Your task to perform on an android device: What's on my calendar today? Image 0: 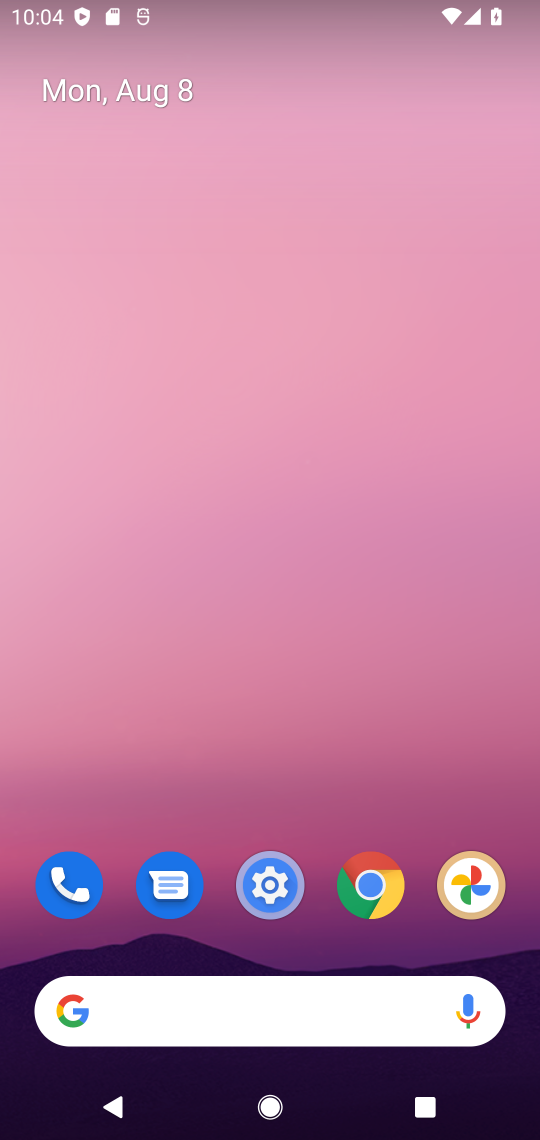
Step 0: drag from (86, 1097) to (305, 292)
Your task to perform on an android device: What's on my calendar today? Image 1: 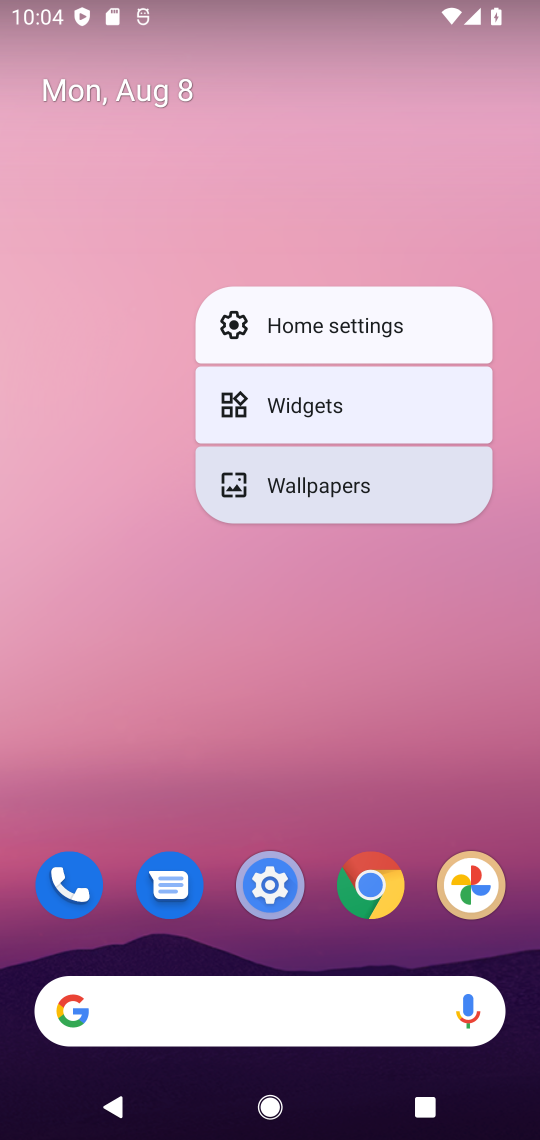
Step 1: drag from (36, 1100) to (124, 300)
Your task to perform on an android device: What's on my calendar today? Image 2: 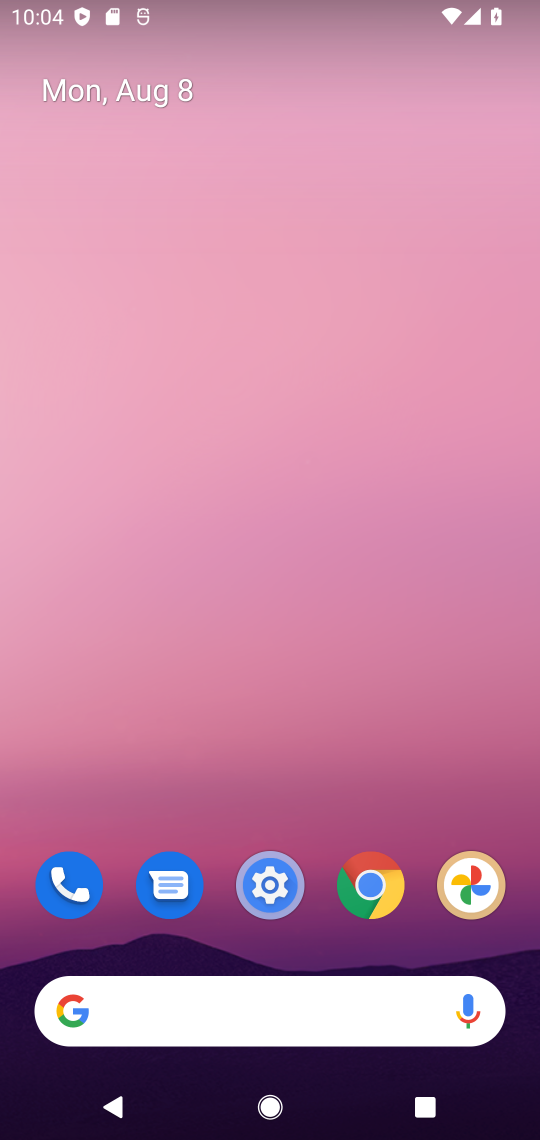
Step 2: drag from (52, 1028) to (98, 289)
Your task to perform on an android device: What's on my calendar today? Image 3: 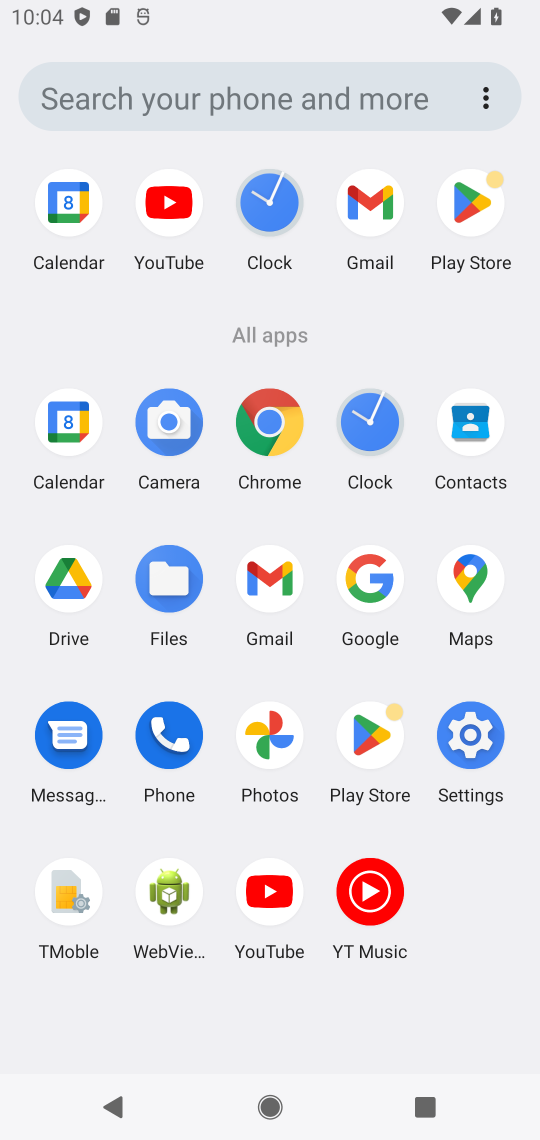
Step 3: click (56, 428)
Your task to perform on an android device: What's on my calendar today? Image 4: 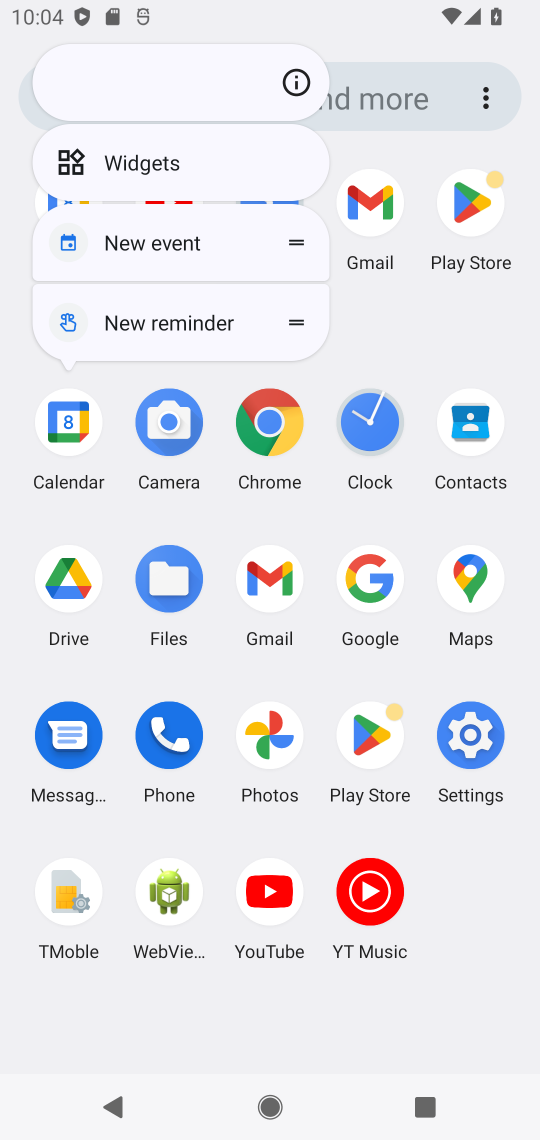
Step 4: click (56, 428)
Your task to perform on an android device: What's on my calendar today? Image 5: 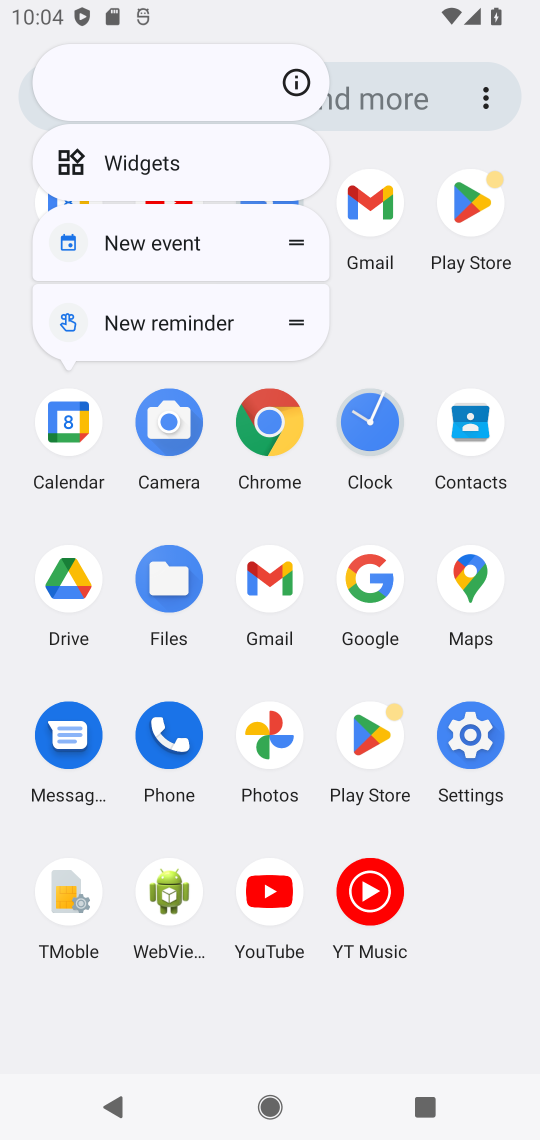
Step 5: click (56, 428)
Your task to perform on an android device: What's on my calendar today? Image 6: 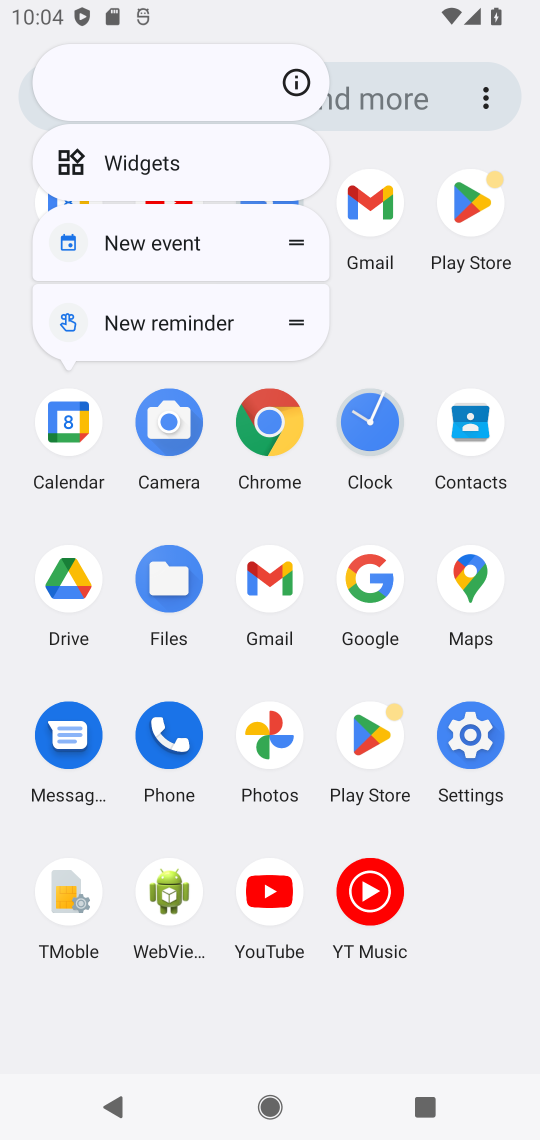
Step 6: click (58, 428)
Your task to perform on an android device: What's on my calendar today? Image 7: 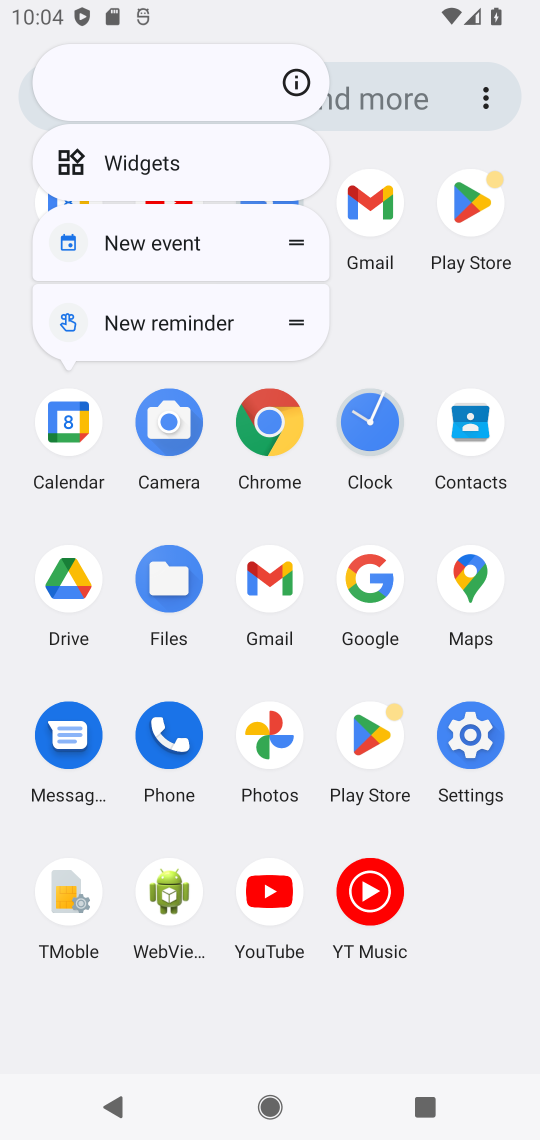
Step 7: click (58, 428)
Your task to perform on an android device: What's on my calendar today? Image 8: 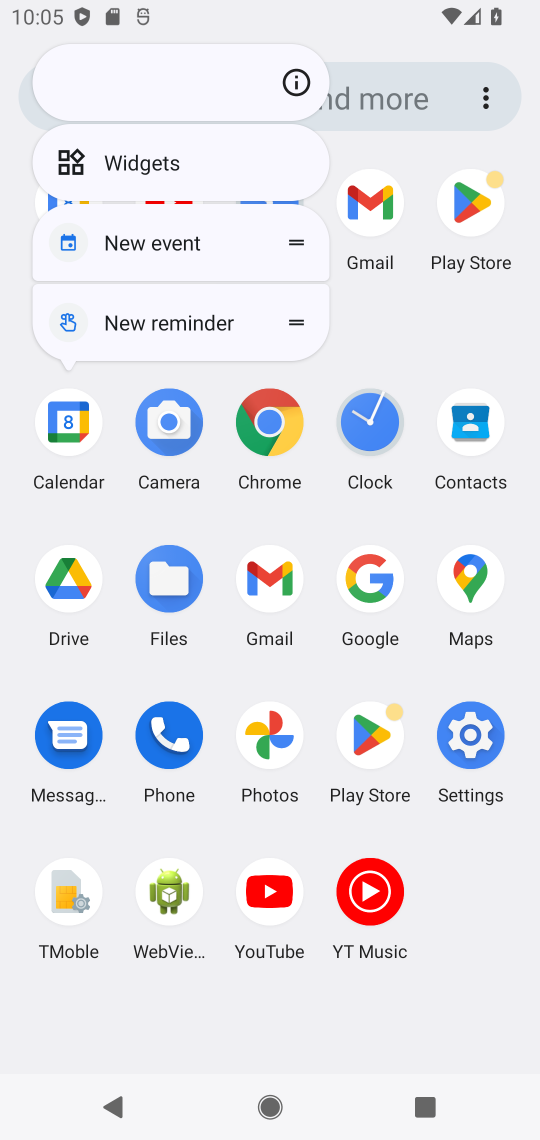
Step 8: click (58, 428)
Your task to perform on an android device: What's on my calendar today? Image 9: 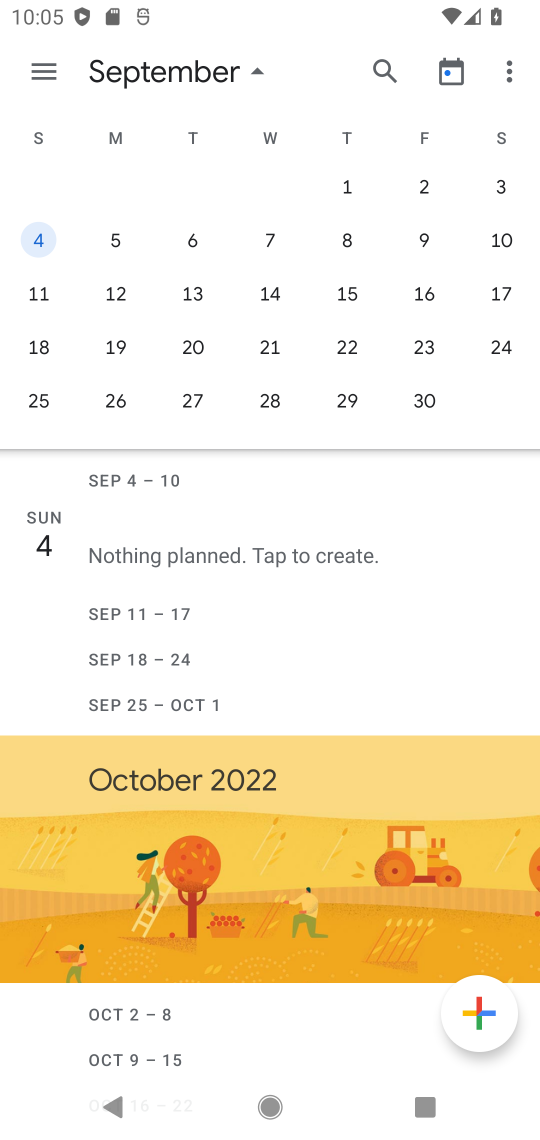
Step 9: task complete